Your task to perform on an android device: all mails in gmail Image 0: 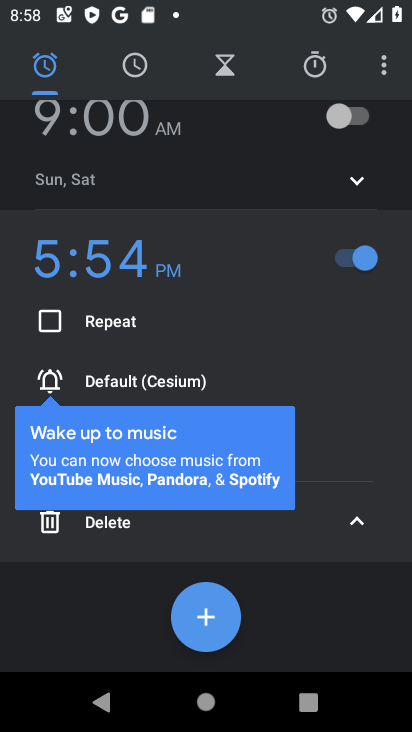
Step 0: press home button
Your task to perform on an android device: all mails in gmail Image 1: 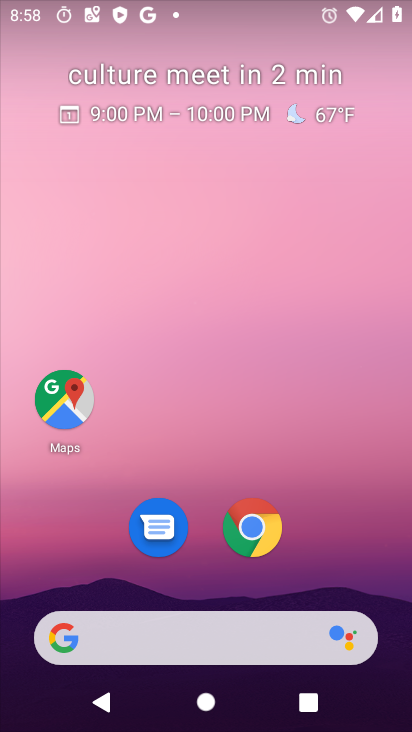
Step 1: drag from (243, 726) to (241, 164)
Your task to perform on an android device: all mails in gmail Image 2: 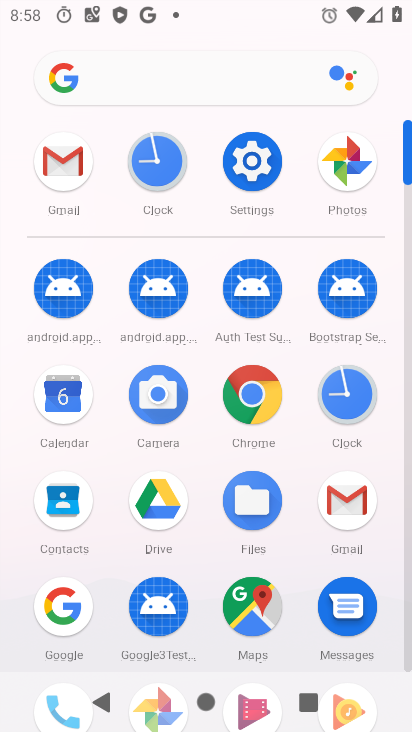
Step 2: click (354, 498)
Your task to perform on an android device: all mails in gmail Image 3: 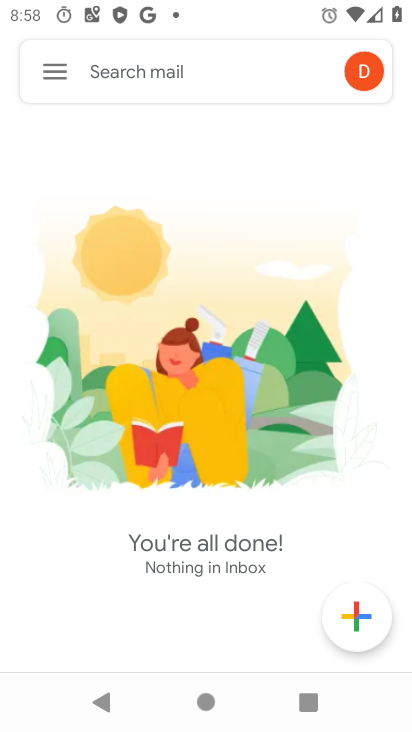
Step 3: click (54, 72)
Your task to perform on an android device: all mails in gmail Image 4: 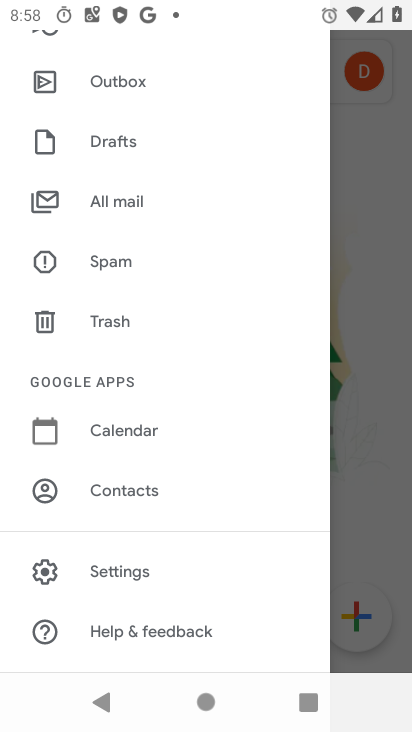
Step 4: click (125, 199)
Your task to perform on an android device: all mails in gmail Image 5: 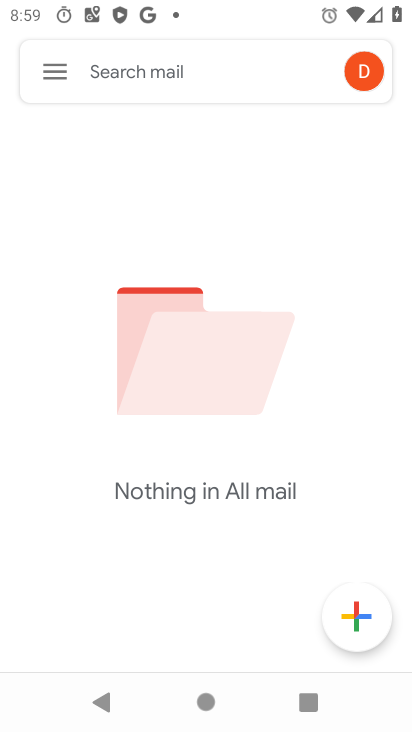
Step 5: task complete